Your task to perform on an android device: change the upload size in google photos Image 0: 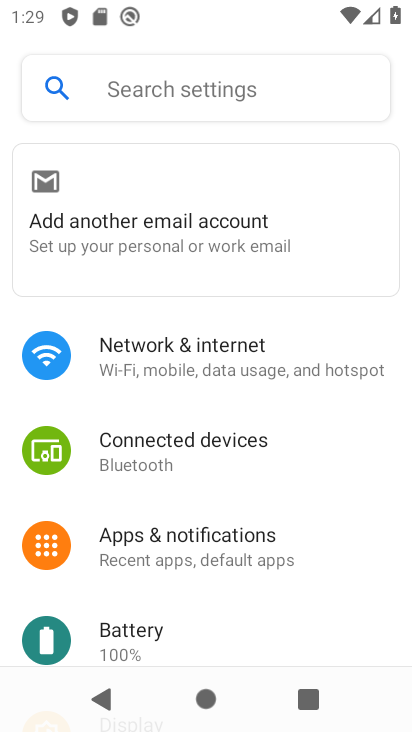
Step 0: press back button
Your task to perform on an android device: change the upload size in google photos Image 1: 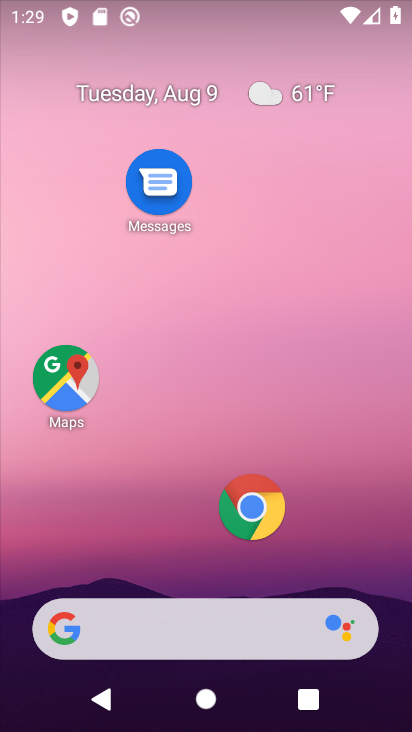
Step 1: drag from (135, 552) to (231, 13)
Your task to perform on an android device: change the upload size in google photos Image 2: 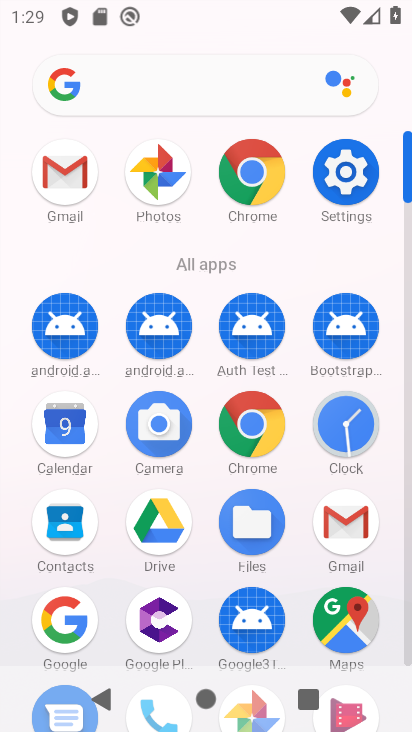
Step 2: drag from (250, 602) to (281, 196)
Your task to perform on an android device: change the upload size in google photos Image 3: 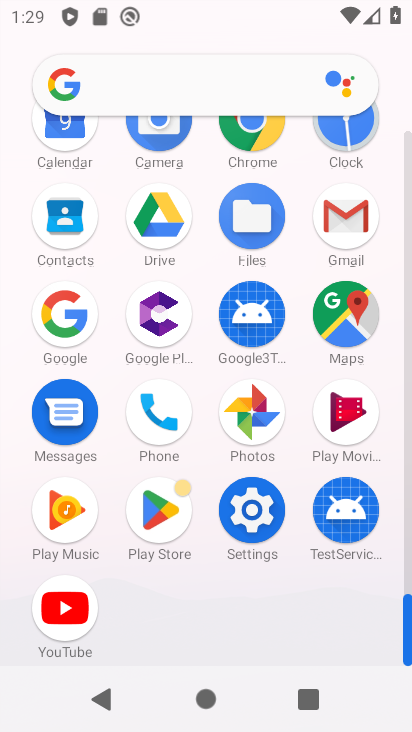
Step 3: click (261, 409)
Your task to perform on an android device: change the upload size in google photos Image 4: 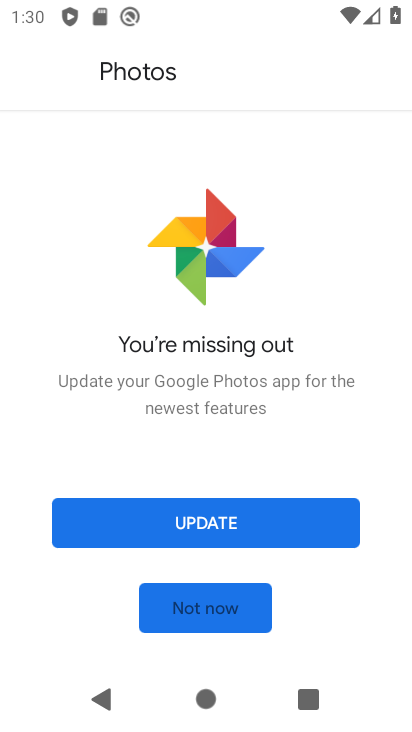
Step 4: click (190, 617)
Your task to perform on an android device: change the upload size in google photos Image 5: 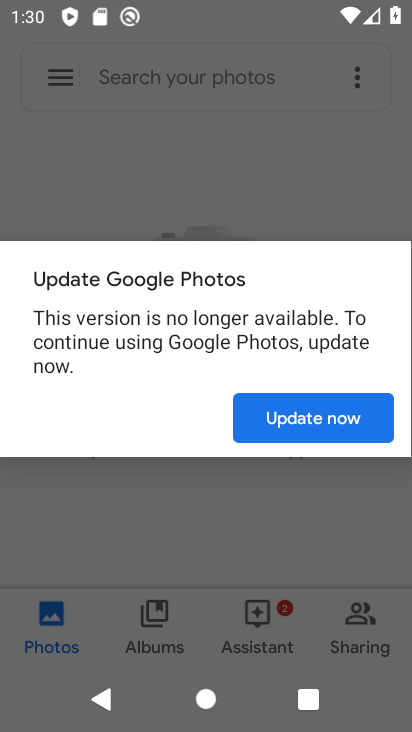
Step 5: click (301, 423)
Your task to perform on an android device: change the upload size in google photos Image 6: 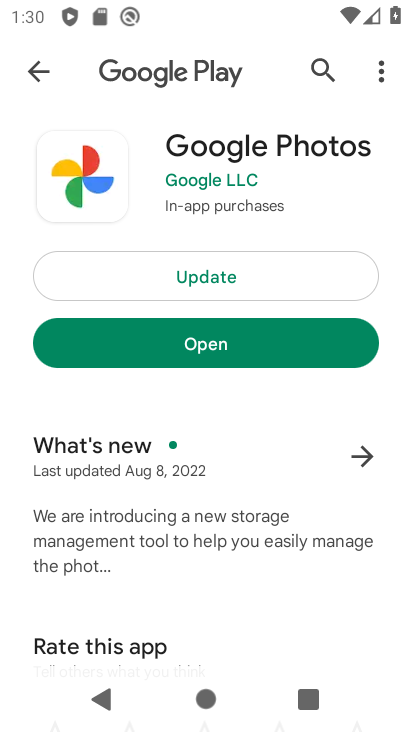
Step 6: click (202, 338)
Your task to perform on an android device: change the upload size in google photos Image 7: 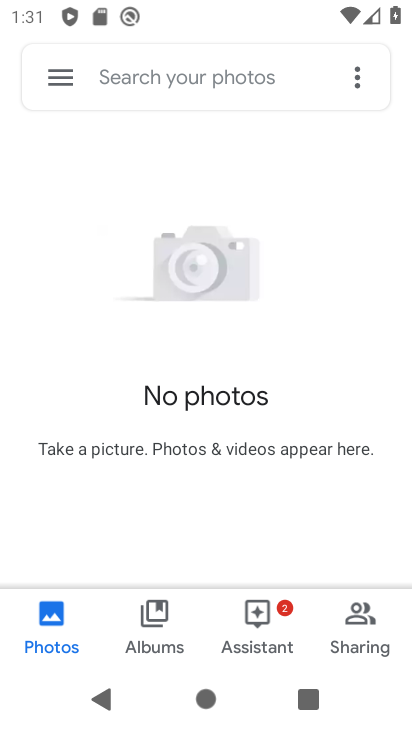
Step 7: click (64, 67)
Your task to perform on an android device: change the upload size in google photos Image 8: 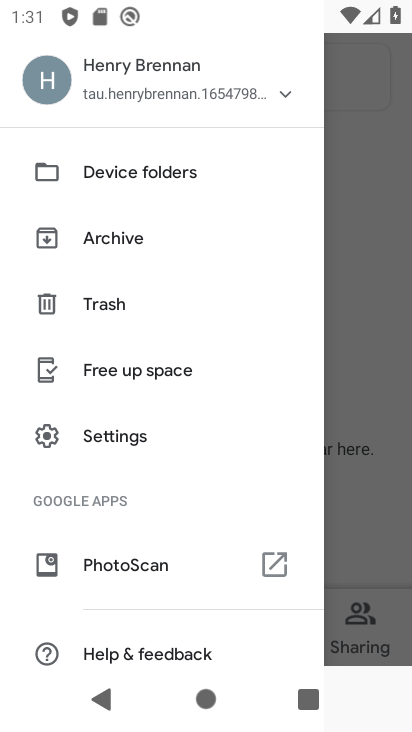
Step 8: click (103, 436)
Your task to perform on an android device: change the upload size in google photos Image 9: 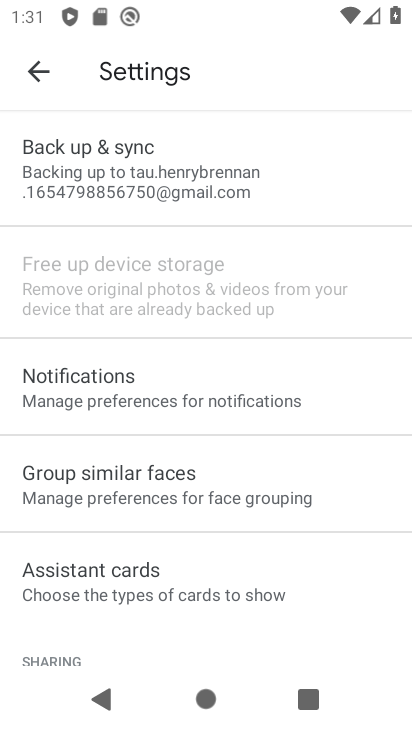
Step 9: click (163, 163)
Your task to perform on an android device: change the upload size in google photos Image 10: 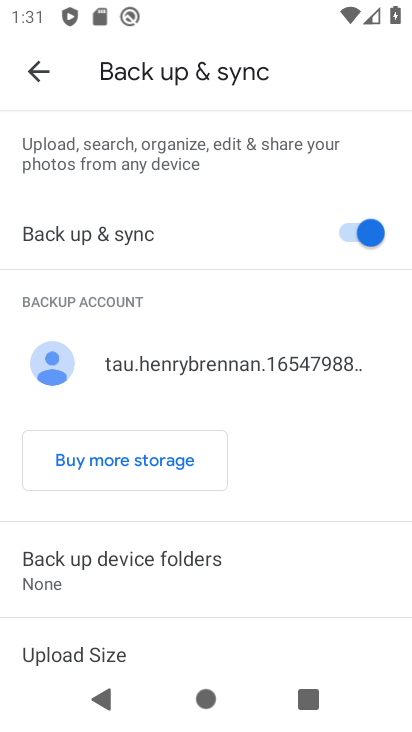
Step 10: click (128, 648)
Your task to perform on an android device: change the upload size in google photos Image 11: 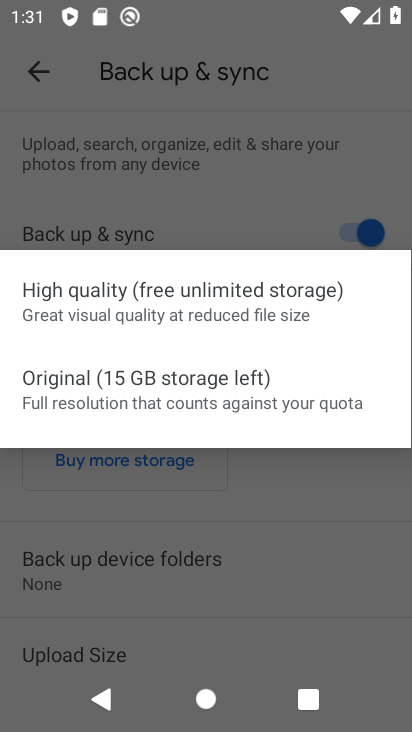
Step 11: click (187, 501)
Your task to perform on an android device: change the upload size in google photos Image 12: 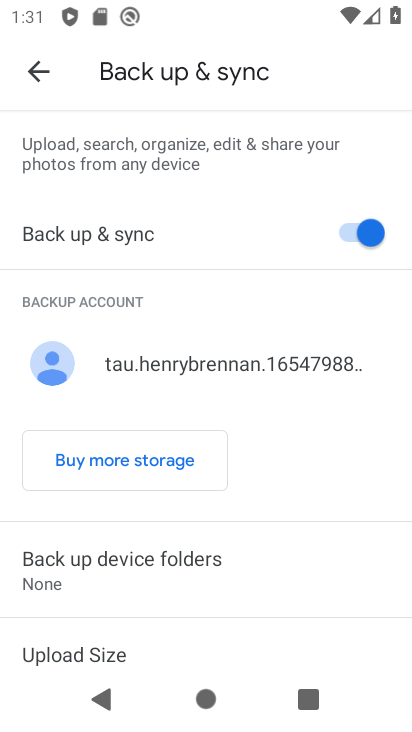
Step 12: drag from (187, 501) to (232, 202)
Your task to perform on an android device: change the upload size in google photos Image 13: 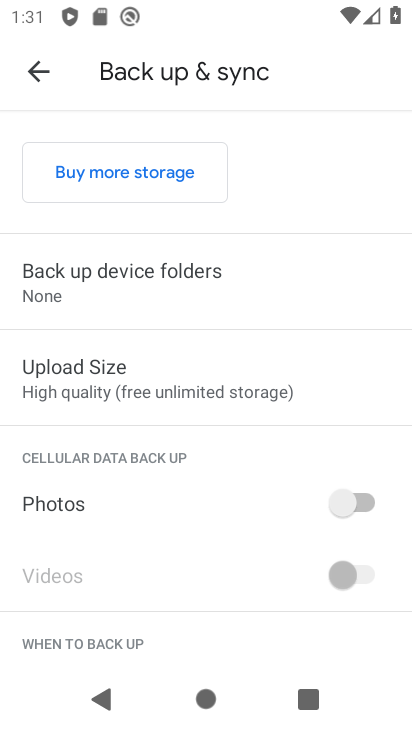
Step 13: click (104, 371)
Your task to perform on an android device: change the upload size in google photos Image 14: 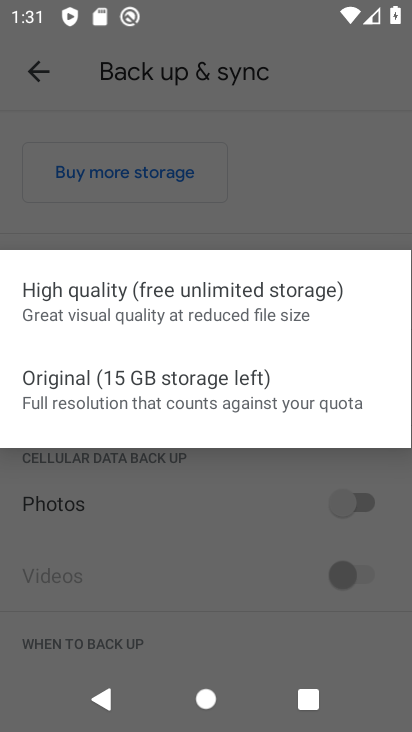
Step 14: click (127, 385)
Your task to perform on an android device: change the upload size in google photos Image 15: 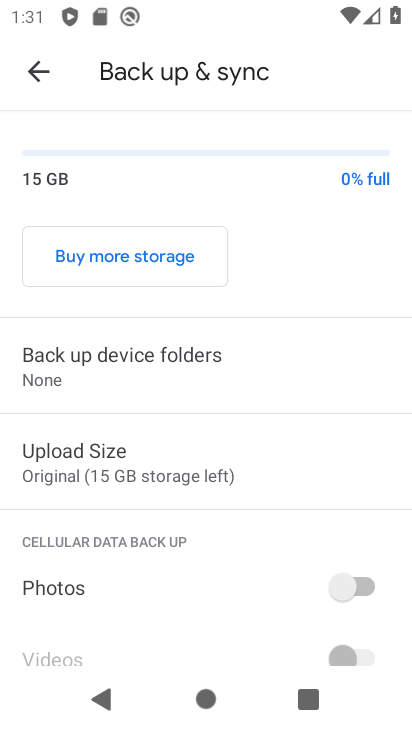
Step 15: task complete